Your task to perform on an android device: Open calendar and show me the third week of next month Image 0: 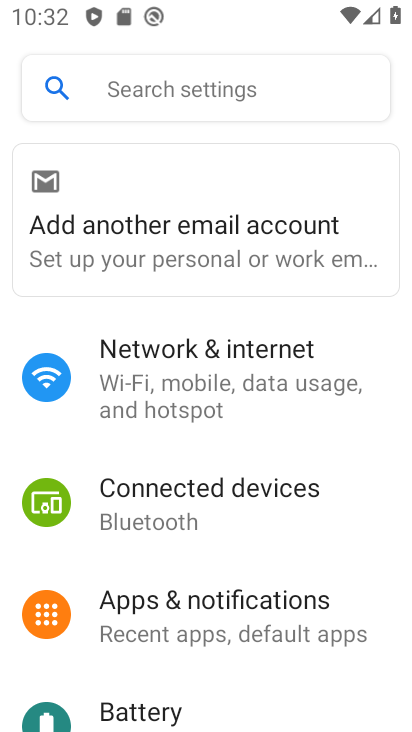
Step 0: press home button
Your task to perform on an android device: Open calendar and show me the third week of next month Image 1: 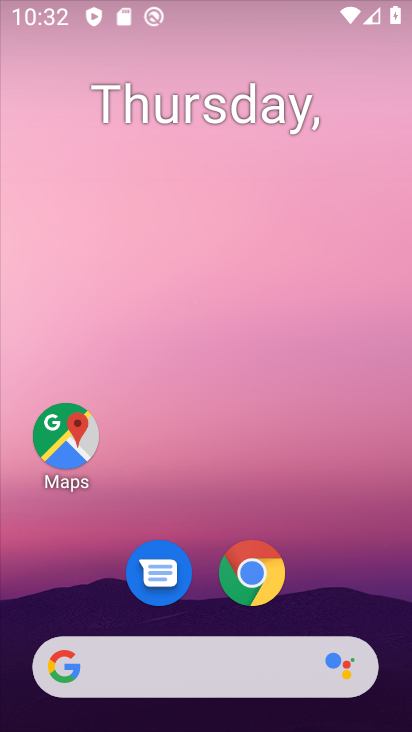
Step 1: drag from (315, 495) to (293, 92)
Your task to perform on an android device: Open calendar and show me the third week of next month Image 2: 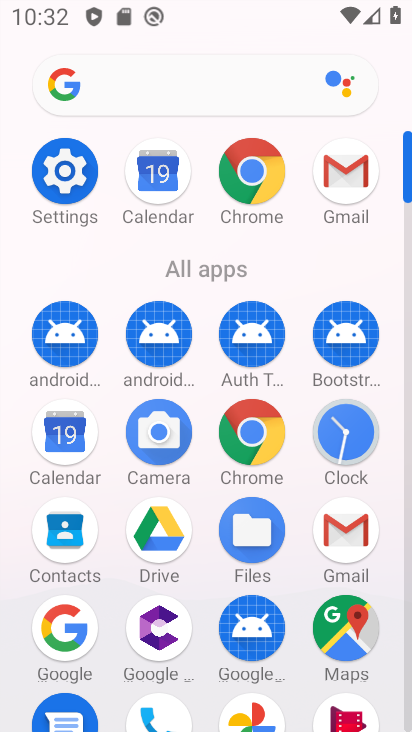
Step 2: click (173, 180)
Your task to perform on an android device: Open calendar and show me the third week of next month Image 3: 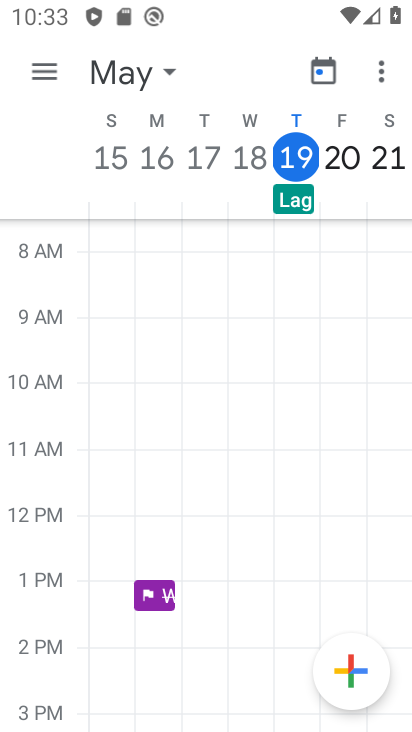
Step 3: click (153, 86)
Your task to perform on an android device: Open calendar and show me the third week of next month Image 4: 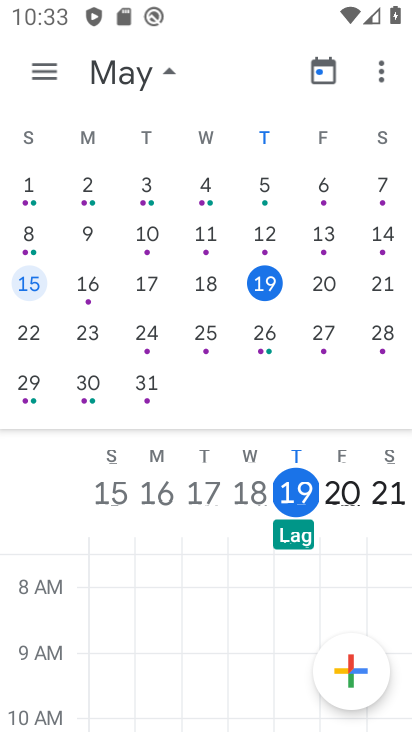
Step 4: drag from (325, 295) to (55, 276)
Your task to perform on an android device: Open calendar and show me the third week of next month Image 5: 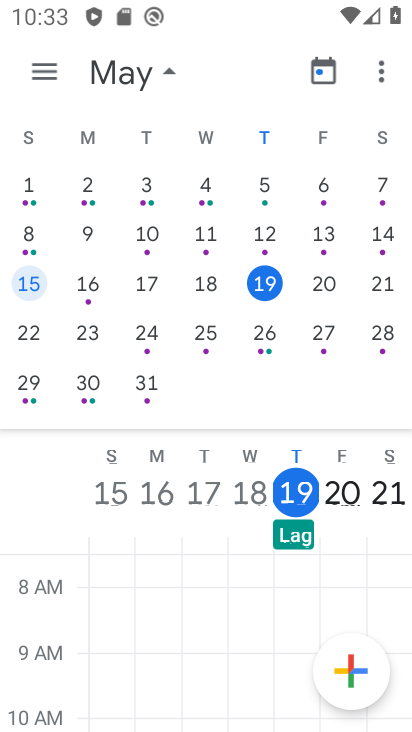
Step 5: drag from (368, 308) to (31, 301)
Your task to perform on an android device: Open calendar and show me the third week of next month Image 6: 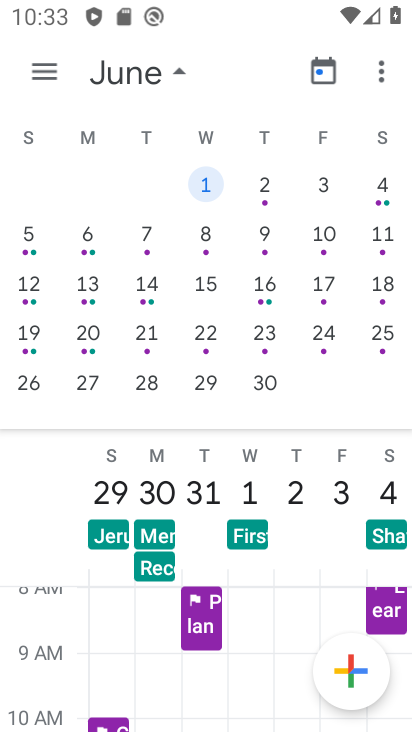
Step 6: click (35, 331)
Your task to perform on an android device: Open calendar and show me the third week of next month Image 7: 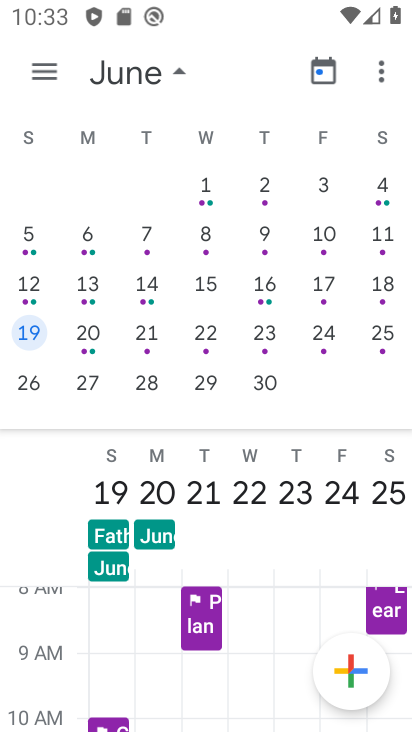
Step 7: task complete